Your task to perform on an android device: turn on translation in the chrome app Image 0: 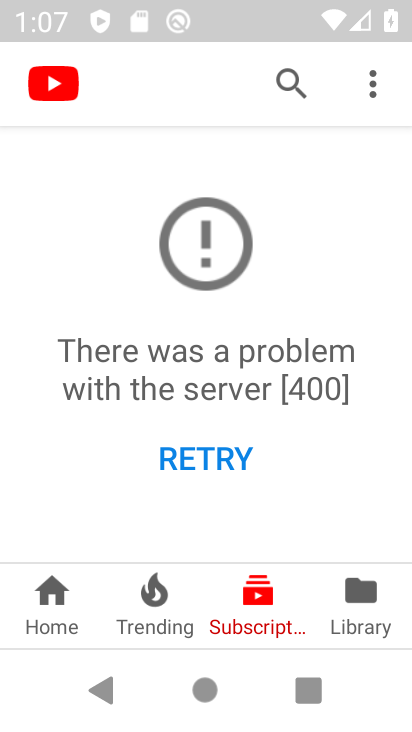
Step 0: press home button
Your task to perform on an android device: turn on translation in the chrome app Image 1: 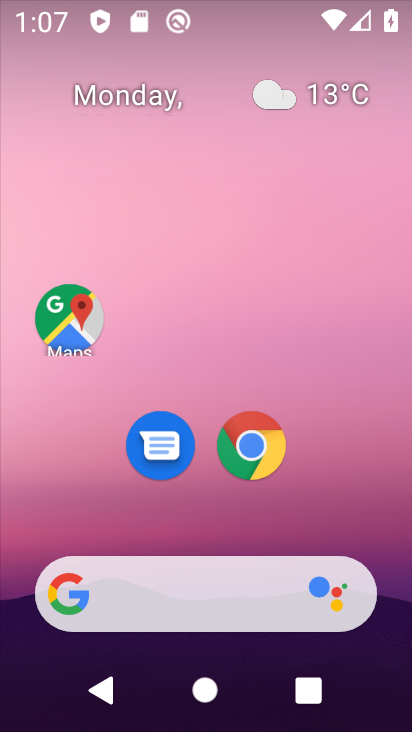
Step 1: click (250, 461)
Your task to perform on an android device: turn on translation in the chrome app Image 2: 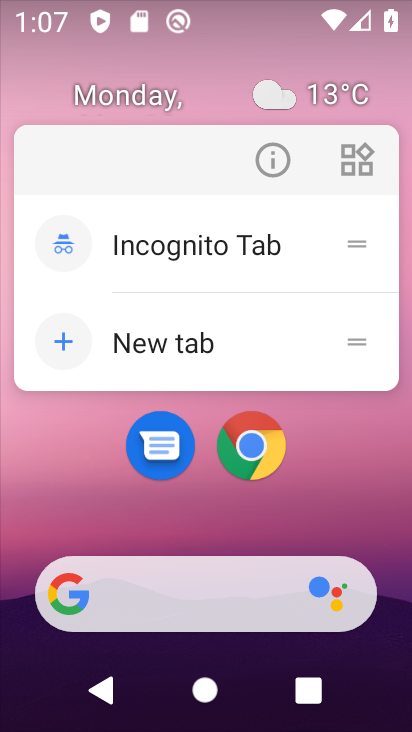
Step 2: click (262, 427)
Your task to perform on an android device: turn on translation in the chrome app Image 3: 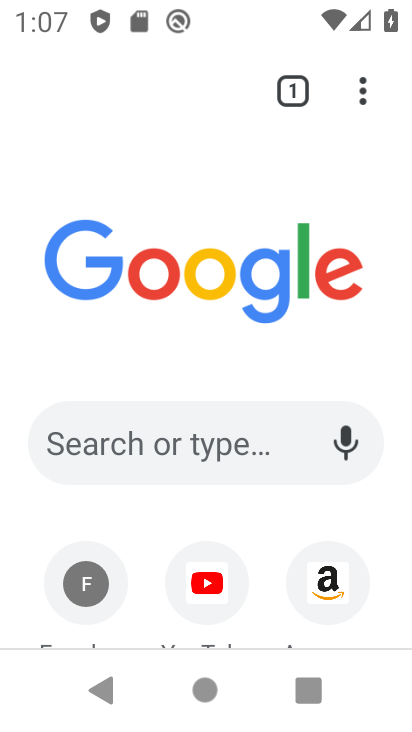
Step 3: click (361, 88)
Your task to perform on an android device: turn on translation in the chrome app Image 4: 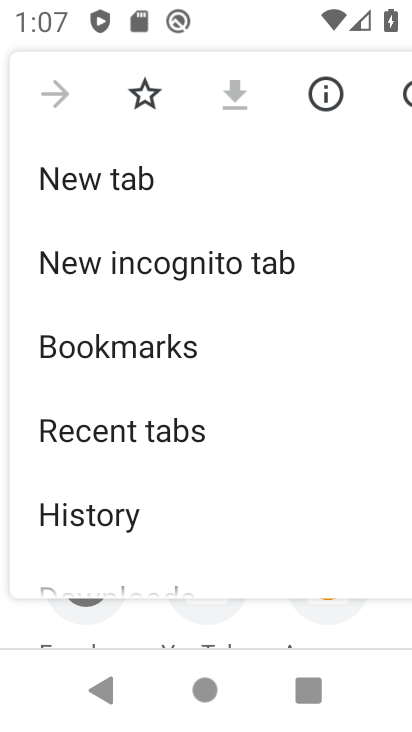
Step 4: drag from (201, 507) to (129, 148)
Your task to perform on an android device: turn on translation in the chrome app Image 5: 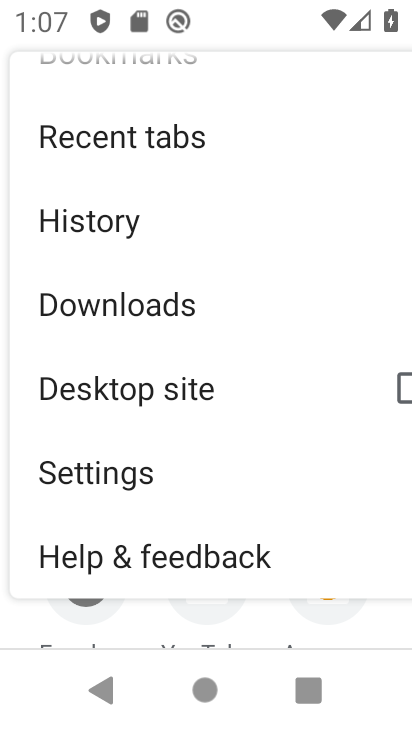
Step 5: click (106, 475)
Your task to perform on an android device: turn on translation in the chrome app Image 6: 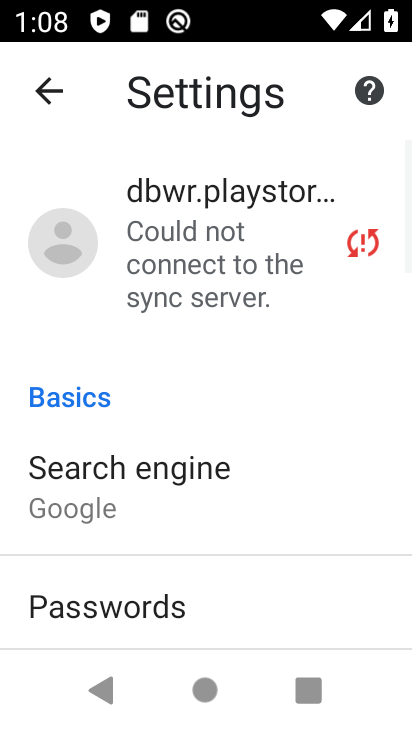
Step 6: drag from (116, 598) to (47, 127)
Your task to perform on an android device: turn on translation in the chrome app Image 7: 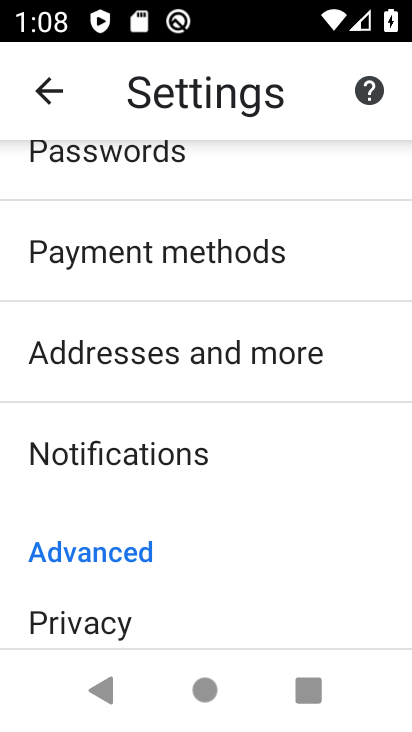
Step 7: drag from (186, 595) to (225, 430)
Your task to perform on an android device: turn on translation in the chrome app Image 8: 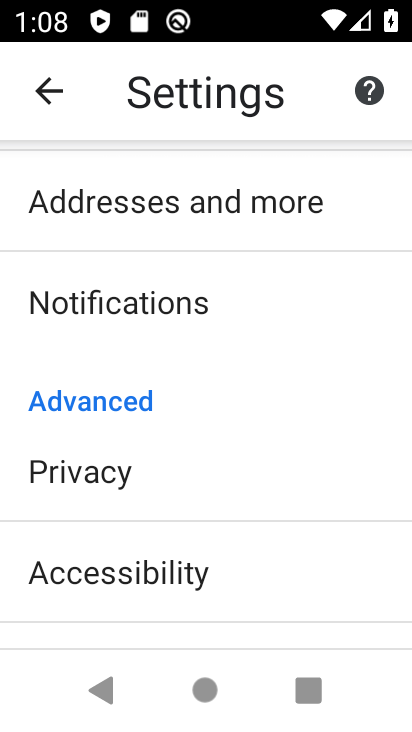
Step 8: drag from (162, 622) to (146, 412)
Your task to perform on an android device: turn on translation in the chrome app Image 9: 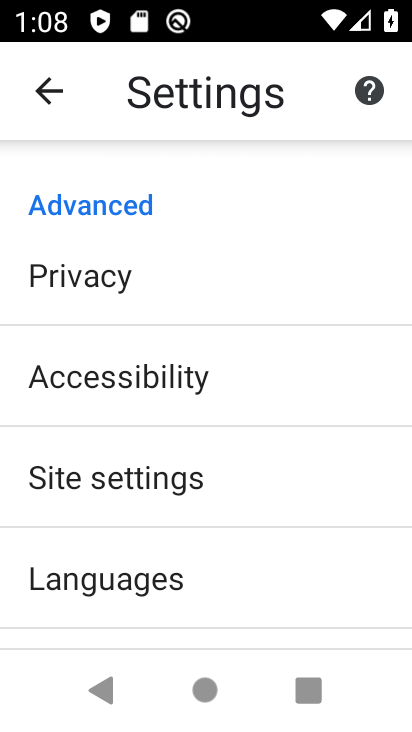
Step 9: click (144, 585)
Your task to perform on an android device: turn on translation in the chrome app Image 10: 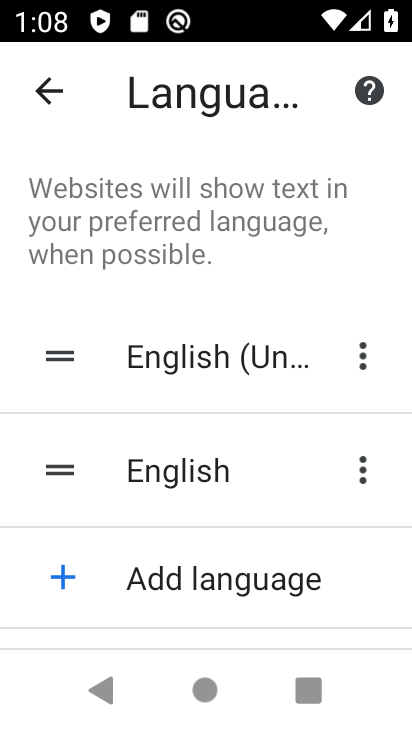
Step 10: task complete